Your task to perform on an android device: change the upload size in google photos Image 0: 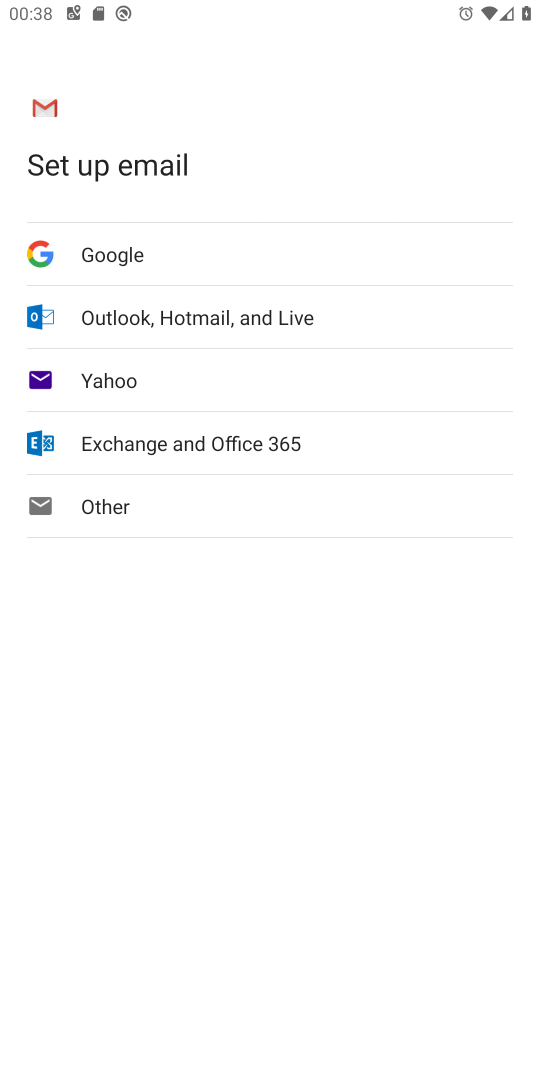
Step 0: press home button
Your task to perform on an android device: change the upload size in google photos Image 1: 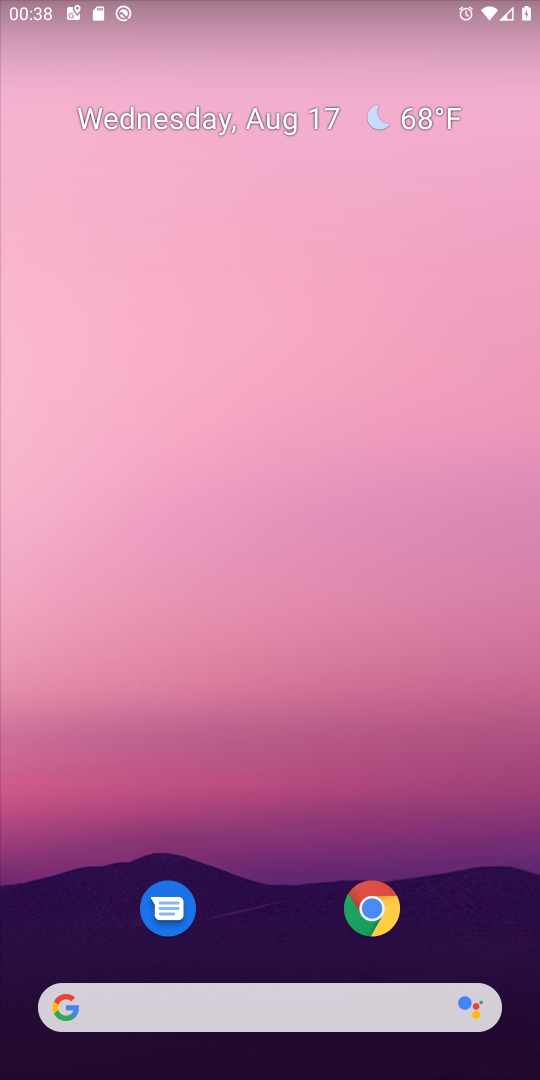
Step 1: drag from (270, 902) to (278, 255)
Your task to perform on an android device: change the upload size in google photos Image 2: 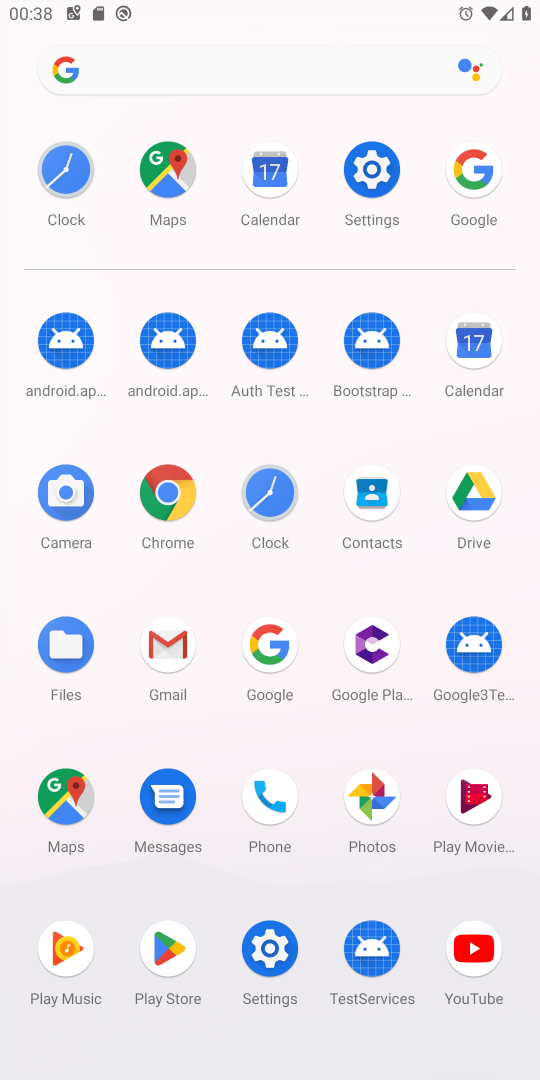
Step 2: click (373, 795)
Your task to perform on an android device: change the upload size in google photos Image 3: 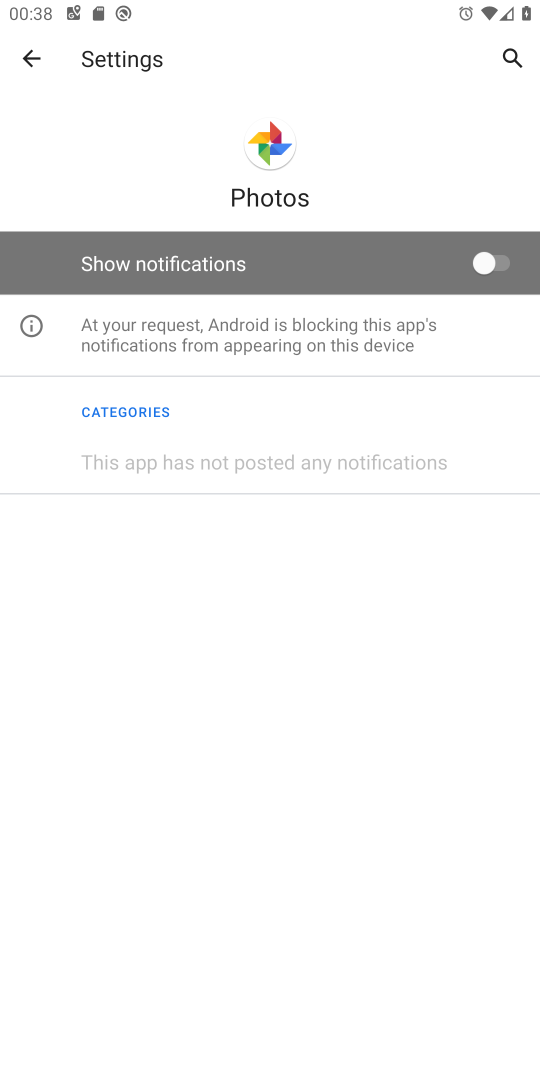
Step 3: click (22, 66)
Your task to perform on an android device: change the upload size in google photos Image 4: 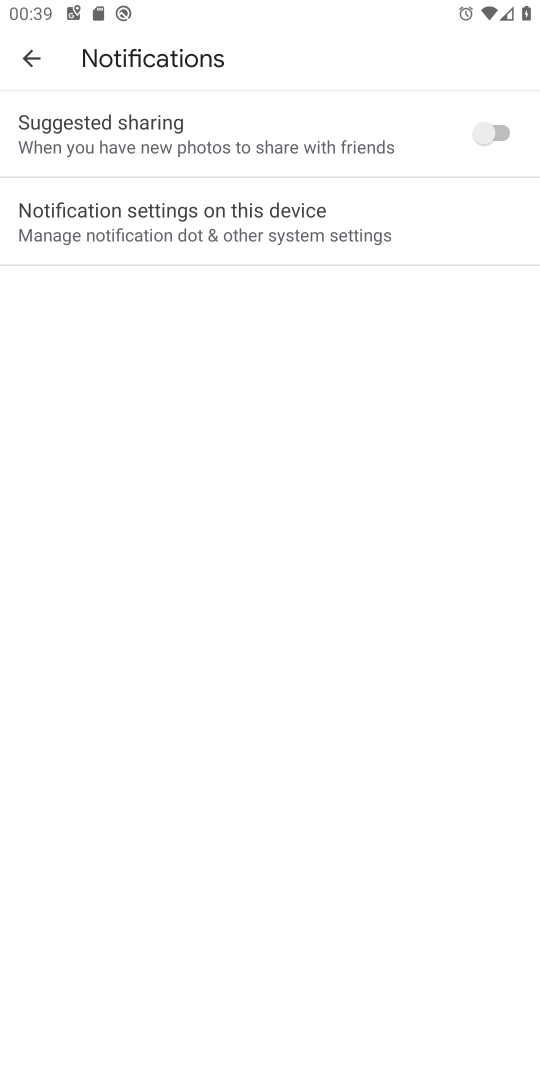
Step 4: click (29, 55)
Your task to perform on an android device: change the upload size in google photos Image 5: 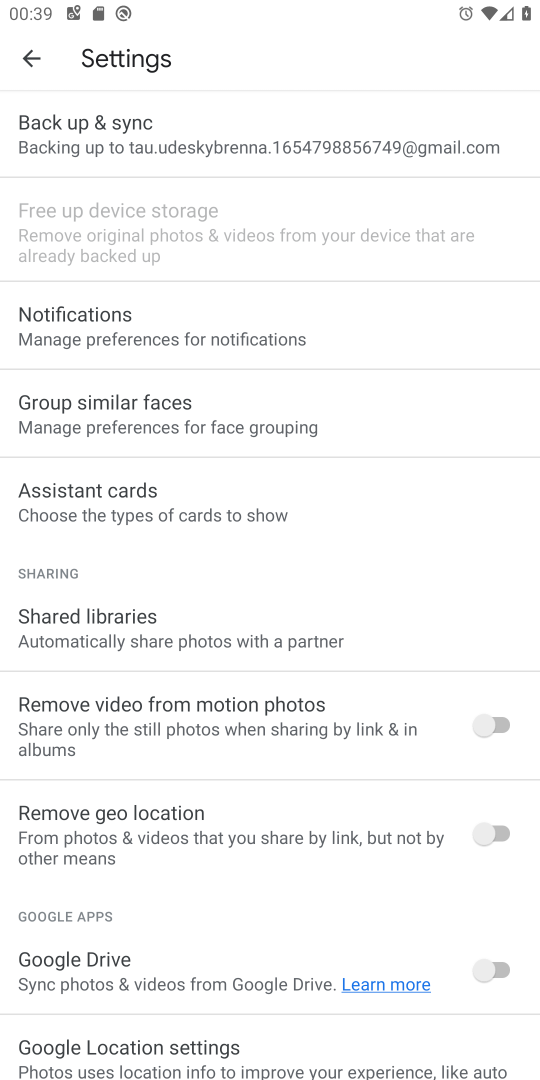
Step 5: click (85, 124)
Your task to perform on an android device: change the upload size in google photos Image 6: 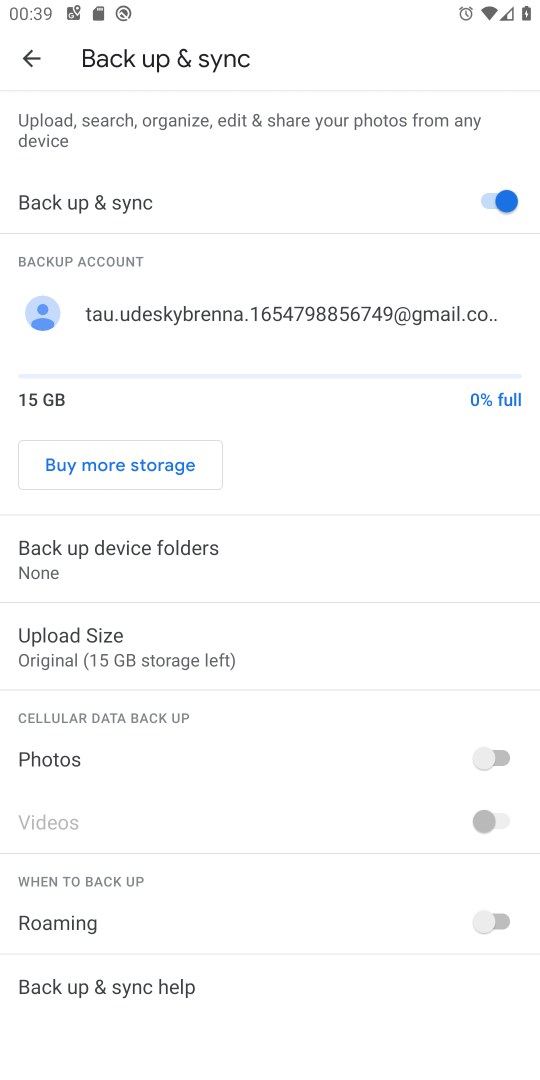
Step 6: click (141, 655)
Your task to perform on an android device: change the upload size in google photos Image 7: 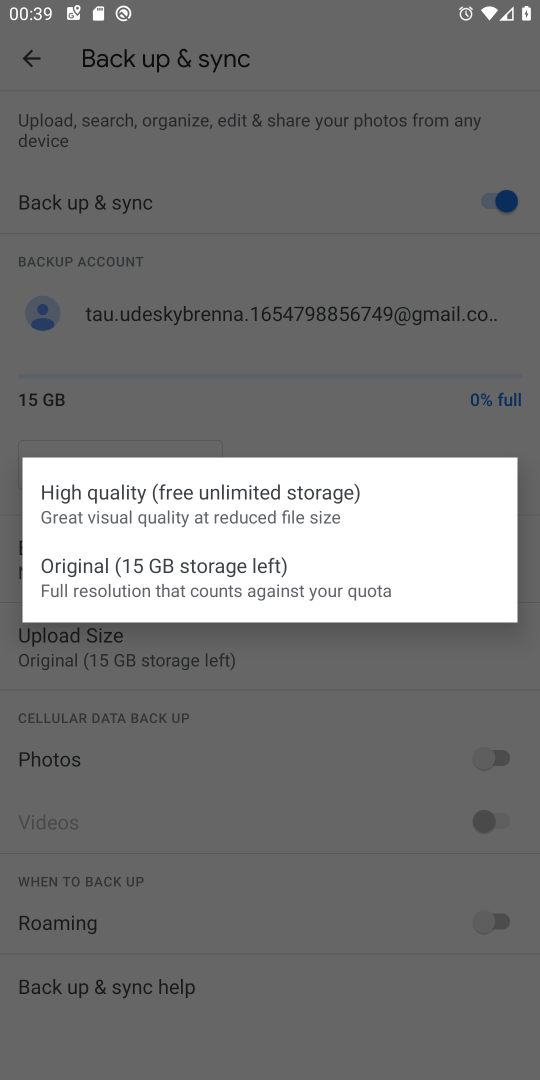
Step 7: click (122, 512)
Your task to perform on an android device: change the upload size in google photos Image 8: 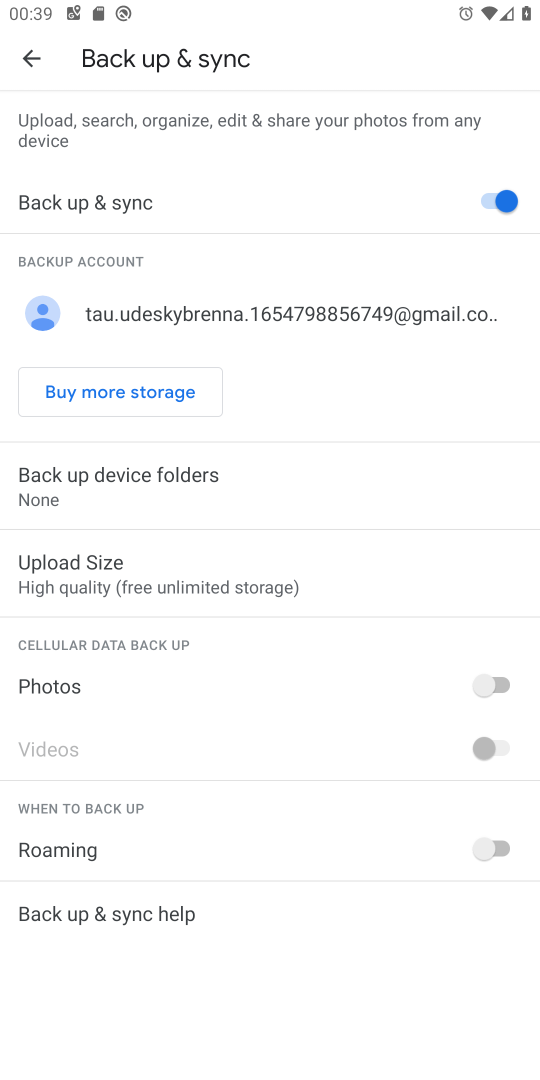
Step 8: task complete